Your task to perform on an android device: remove spam from my inbox in the gmail app Image 0: 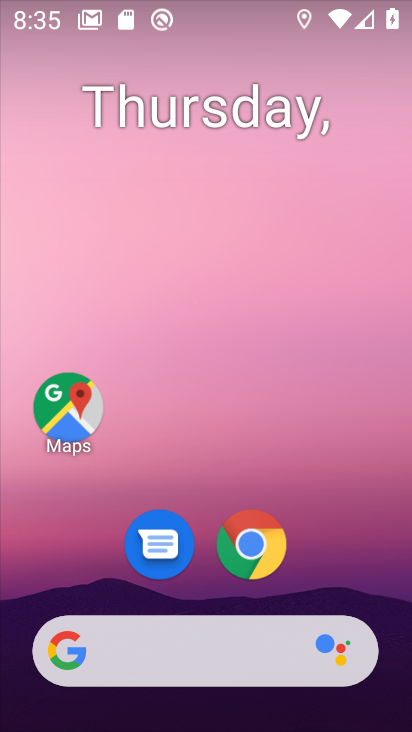
Step 0: drag from (343, 543) to (274, 27)
Your task to perform on an android device: remove spam from my inbox in the gmail app Image 1: 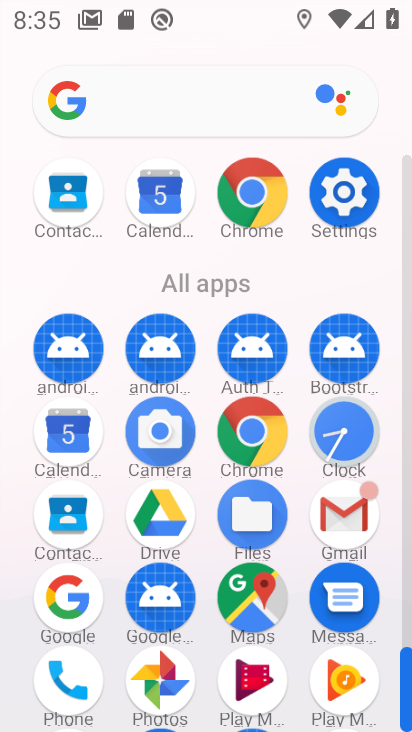
Step 1: click (344, 512)
Your task to perform on an android device: remove spam from my inbox in the gmail app Image 2: 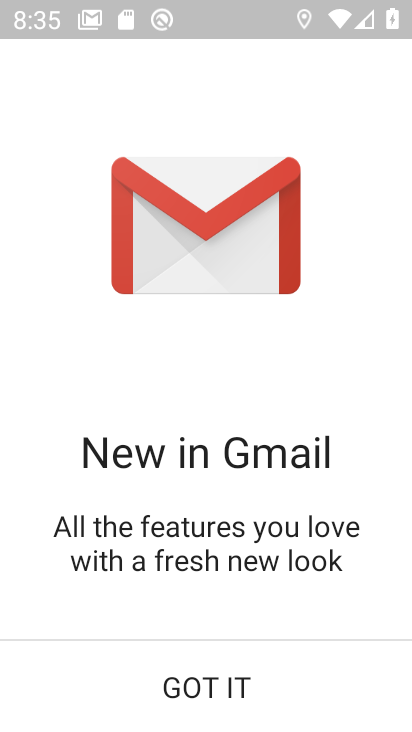
Step 2: click (191, 691)
Your task to perform on an android device: remove spam from my inbox in the gmail app Image 3: 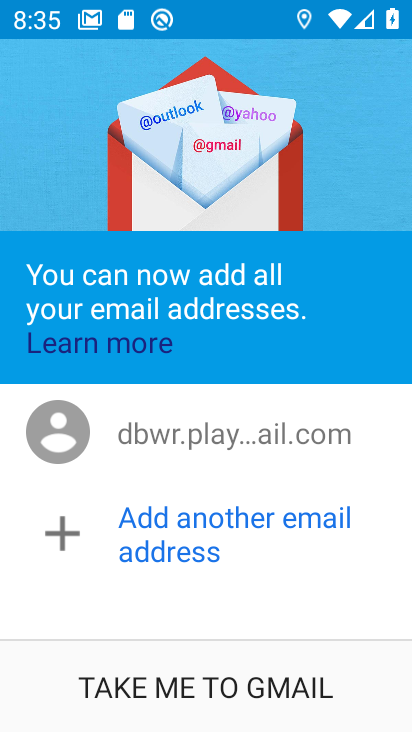
Step 3: click (191, 691)
Your task to perform on an android device: remove spam from my inbox in the gmail app Image 4: 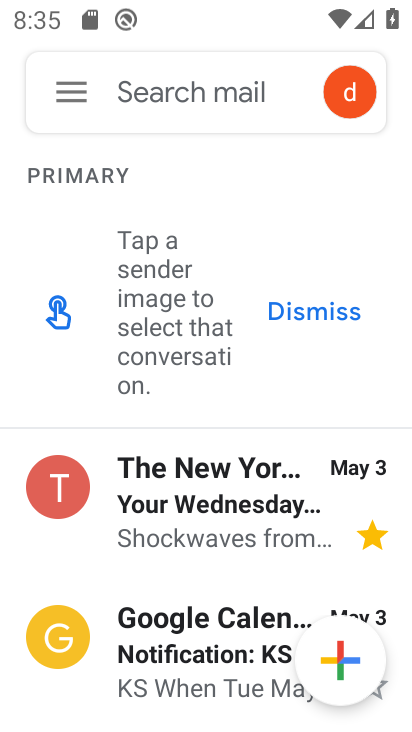
Step 4: click (81, 92)
Your task to perform on an android device: remove spam from my inbox in the gmail app Image 5: 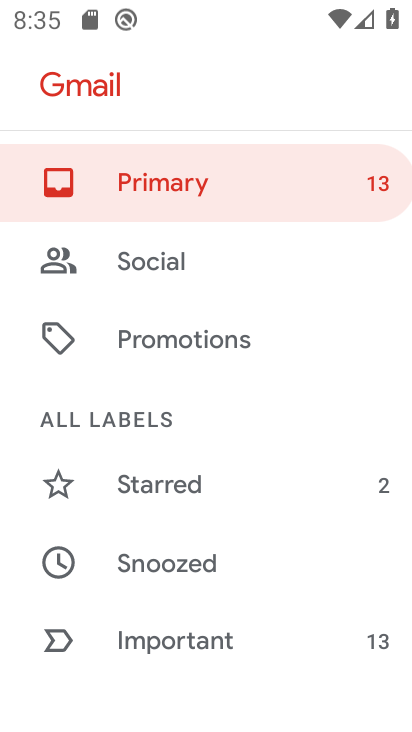
Step 5: drag from (306, 589) to (261, 155)
Your task to perform on an android device: remove spam from my inbox in the gmail app Image 6: 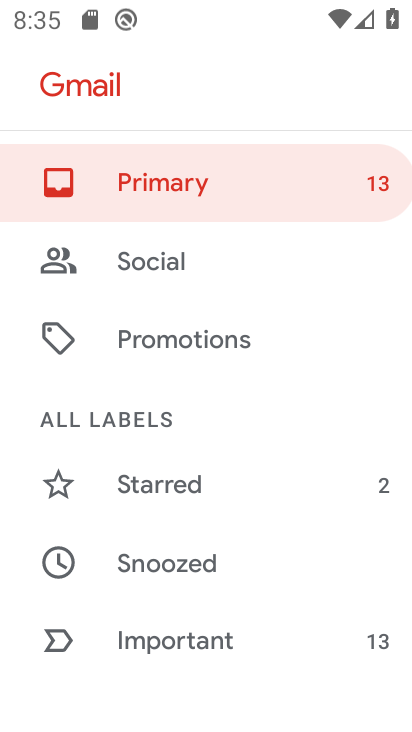
Step 6: drag from (240, 637) to (222, 232)
Your task to perform on an android device: remove spam from my inbox in the gmail app Image 7: 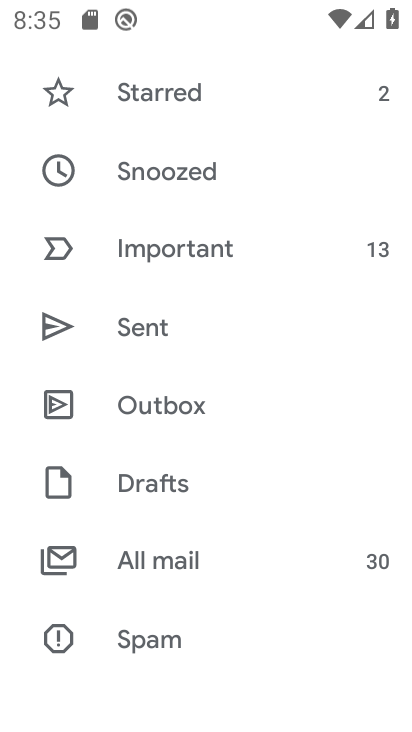
Step 7: drag from (224, 633) to (230, 264)
Your task to perform on an android device: remove spam from my inbox in the gmail app Image 8: 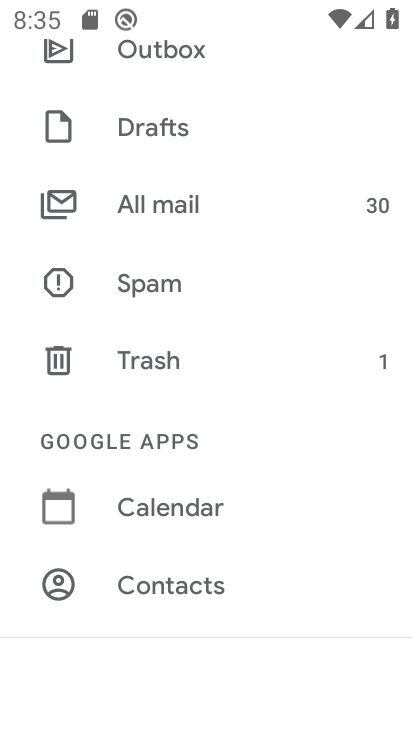
Step 8: click (150, 275)
Your task to perform on an android device: remove spam from my inbox in the gmail app Image 9: 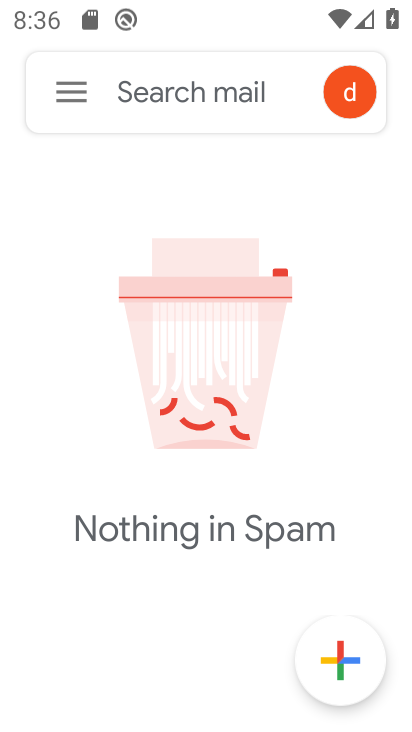
Step 9: task complete